Your task to perform on an android device: Go to display settings Image 0: 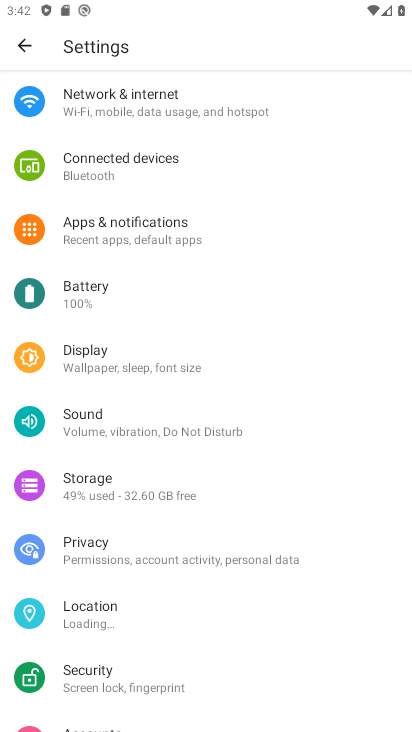
Step 0: click (21, 41)
Your task to perform on an android device: Go to display settings Image 1: 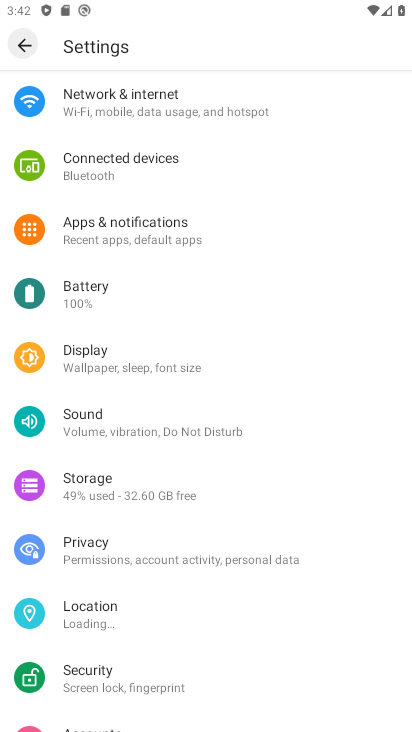
Step 1: click (21, 40)
Your task to perform on an android device: Go to display settings Image 2: 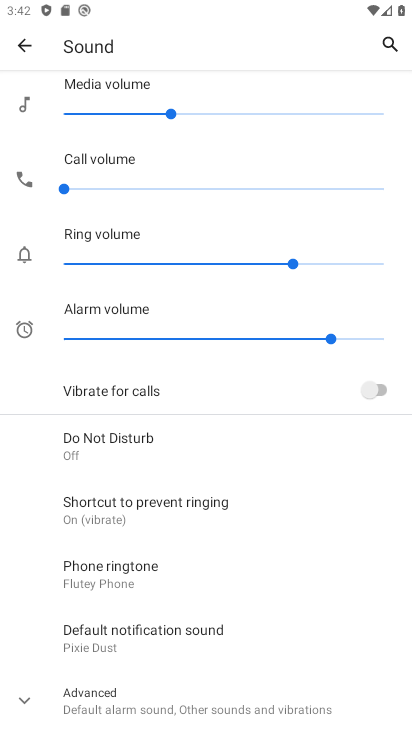
Step 2: click (20, 44)
Your task to perform on an android device: Go to display settings Image 3: 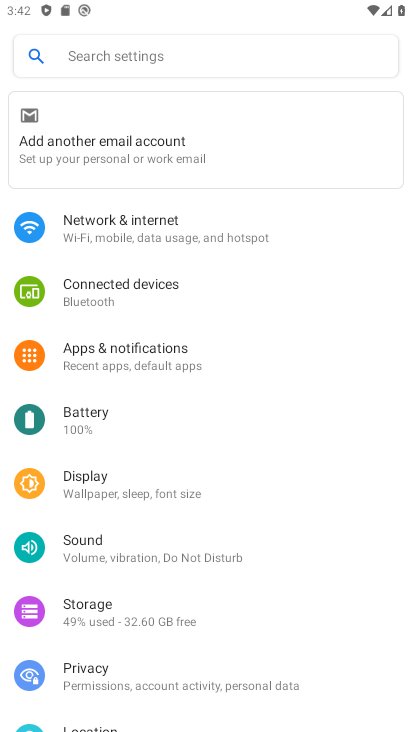
Step 3: click (90, 483)
Your task to perform on an android device: Go to display settings Image 4: 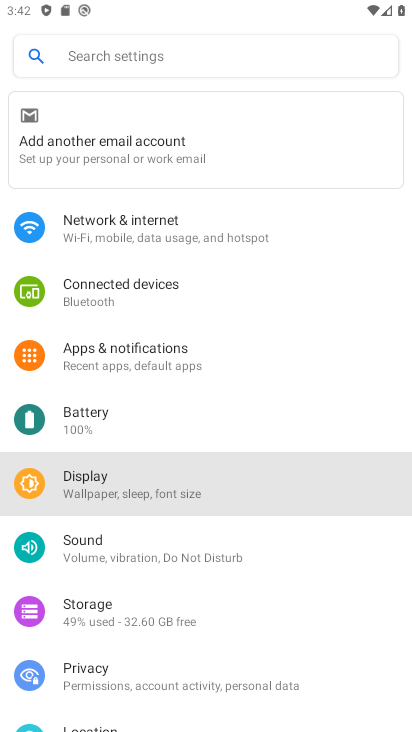
Step 4: click (90, 483)
Your task to perform on an android device: Go to display settings Image 5: 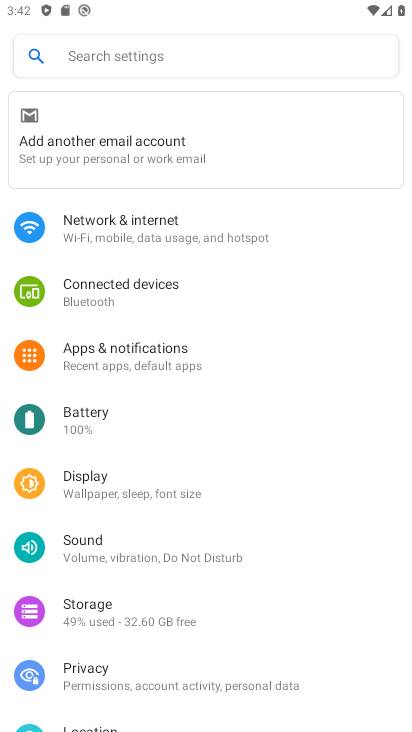
Step 5: click (90, 483)
Your task to perform on an android device: Go to display settings Image 6: 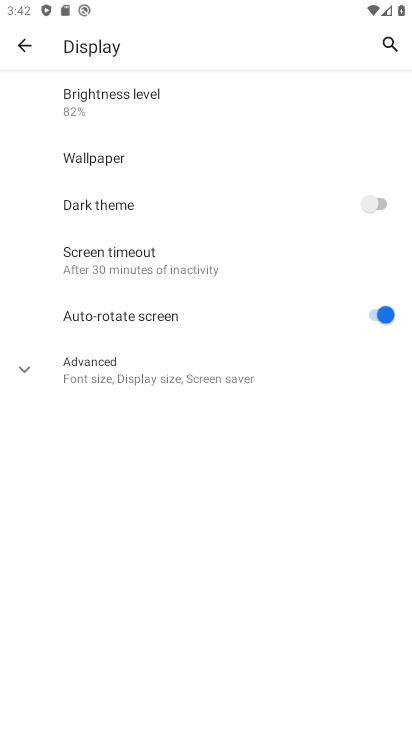
Step 6: task complete